Your task to perform on an android device: turn off location history Image 0: 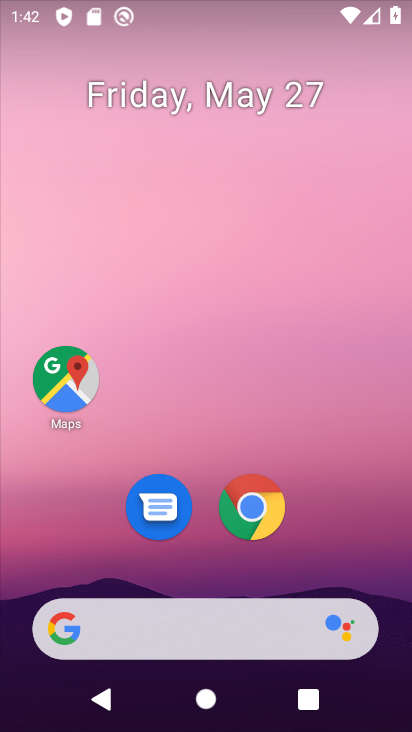
Step 0: drag from (214, 554) to (265, 83)
Your task to perform on an android device: turn off location history Image 1: 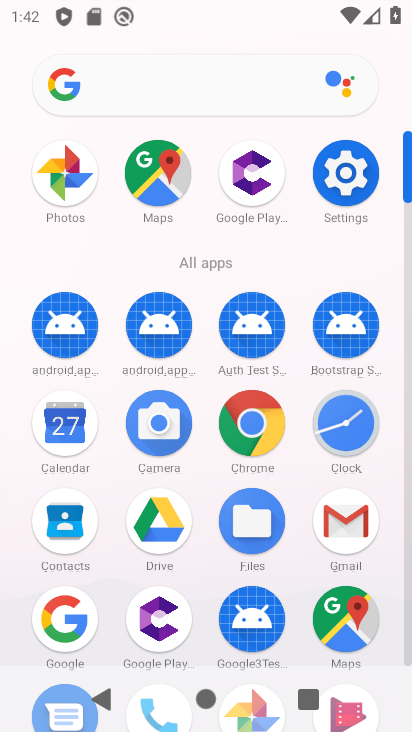
Step 1: click (350, 174)
Your task to perform on an android device: turn off location history Image 2: 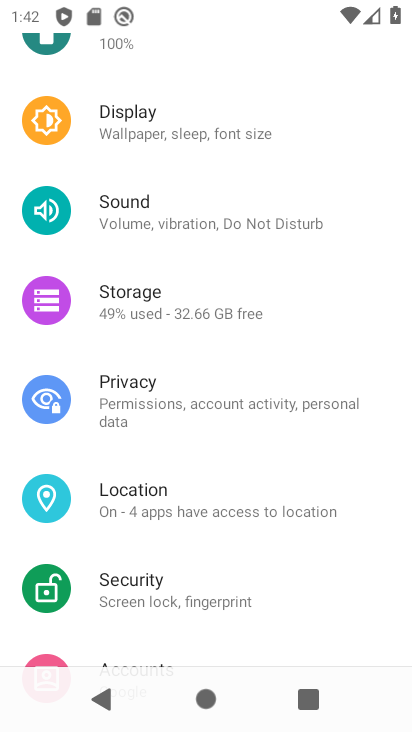
Step 2: click (228, 509)
Your task to perform on an android device: turn off location history Image 3: 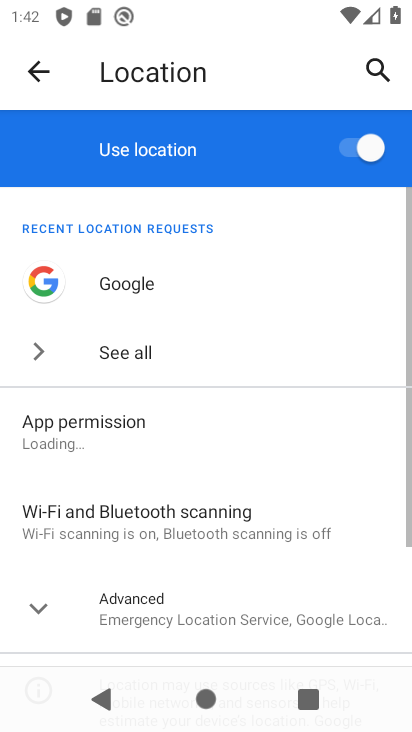
Step 3: drag from (193, 576) to (239, 236)
Your task to perform on an android device: turn off location history Image 4: 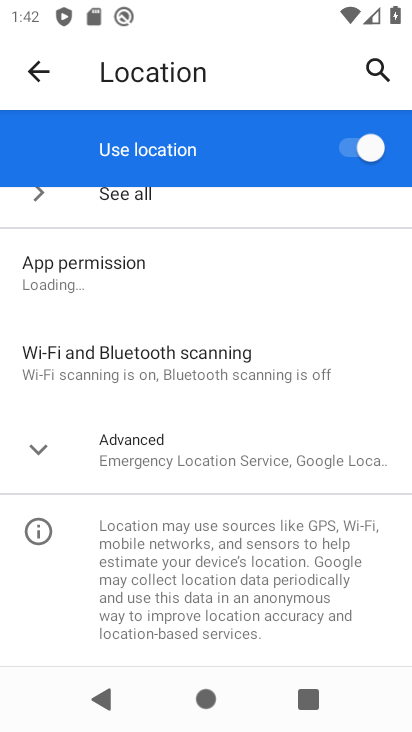
Step 4: click (149, 467)
Your task to perform on an android device: turn off location history Image 5: 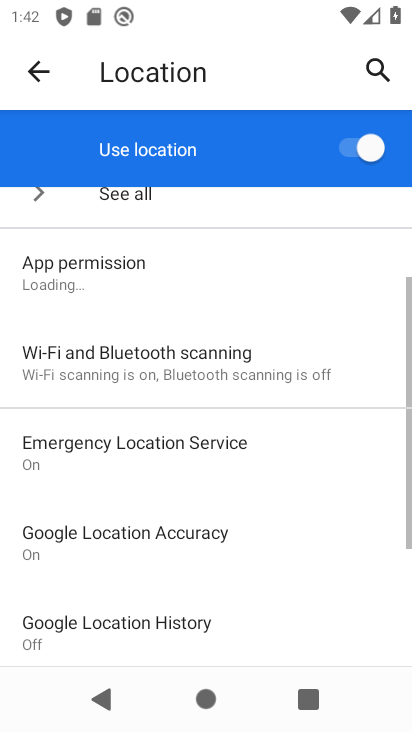
Step 5: drag from (223, 547) to (265, 257)
Your task to perform on an android device: turn off location history Image 6: 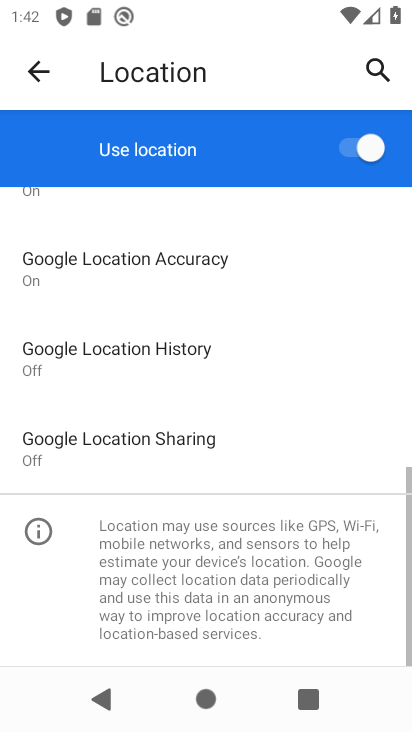
Step 6: click (144, 353)
Your task to perform on an android device: turn off location history Image 7: 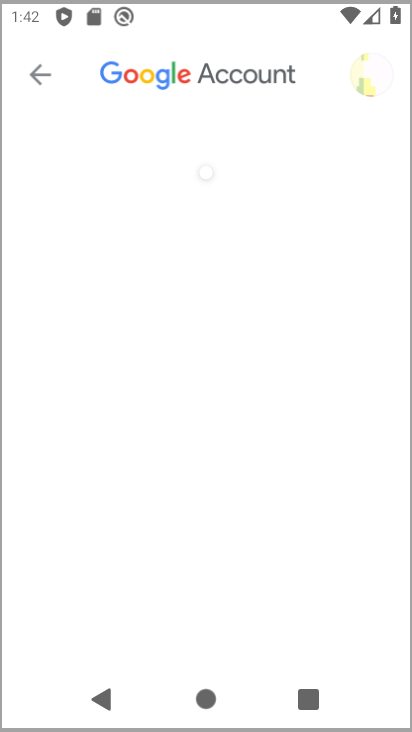
Step 7: task complete